Your task to perform on an android device: Open Reddit.com Image 0: 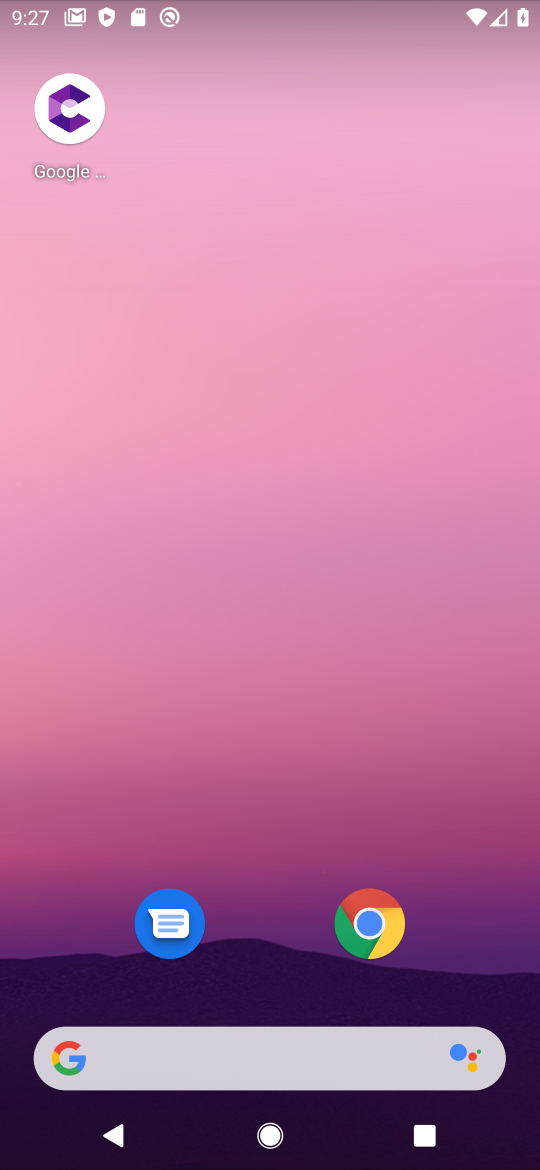
Step 0: click (291, 1061)
Your task to perform on an android device: Open Reddit.com Image 1: 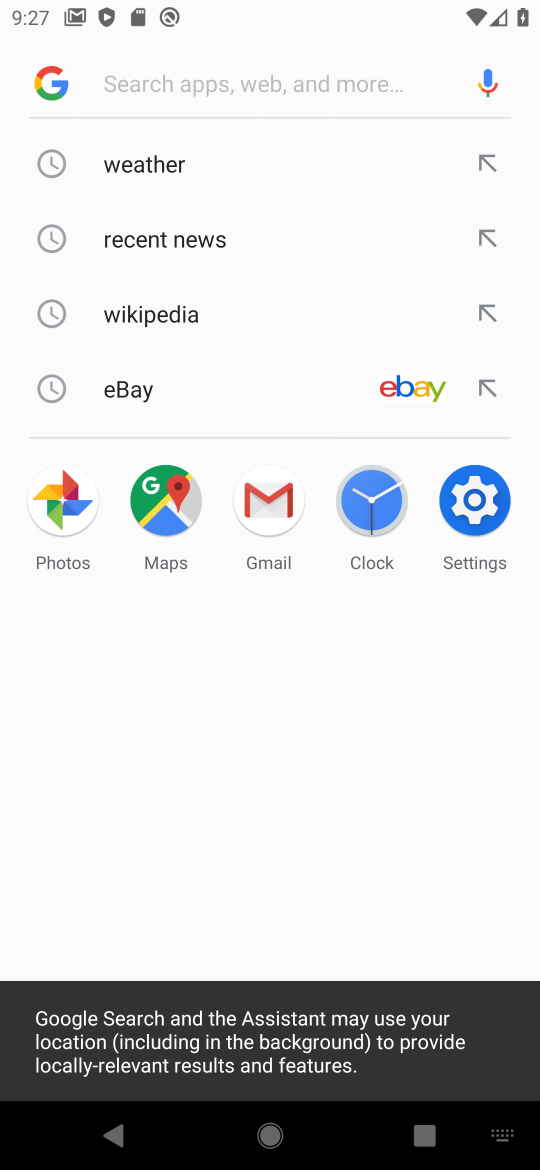
Step 1: click (221, 86)
Your task to perform on an android device: Open Reddit.com Image 2: 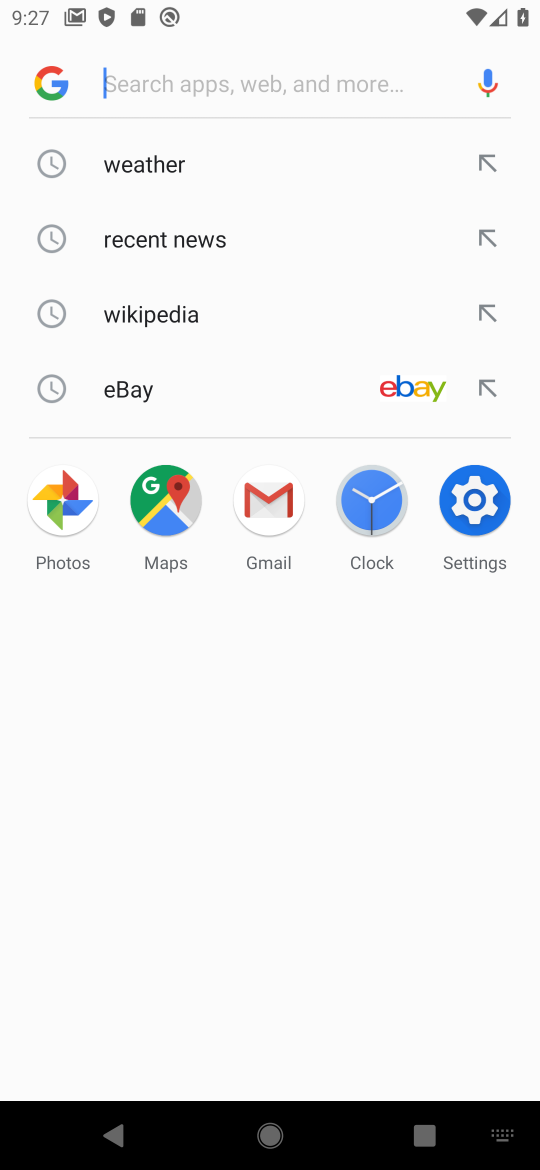
Step 2: type "Reddit.com"
Your task to perform on an android device: Open Reddit.com Image 3: 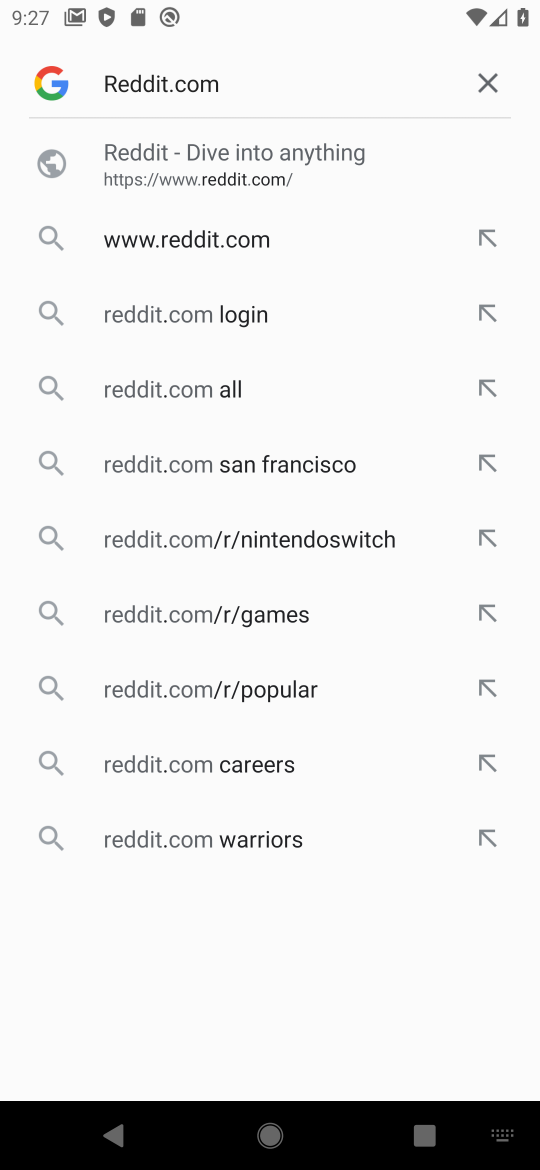
Step 3: type ""
Your task to perform on an android device: Open Reddit.com Image 4: 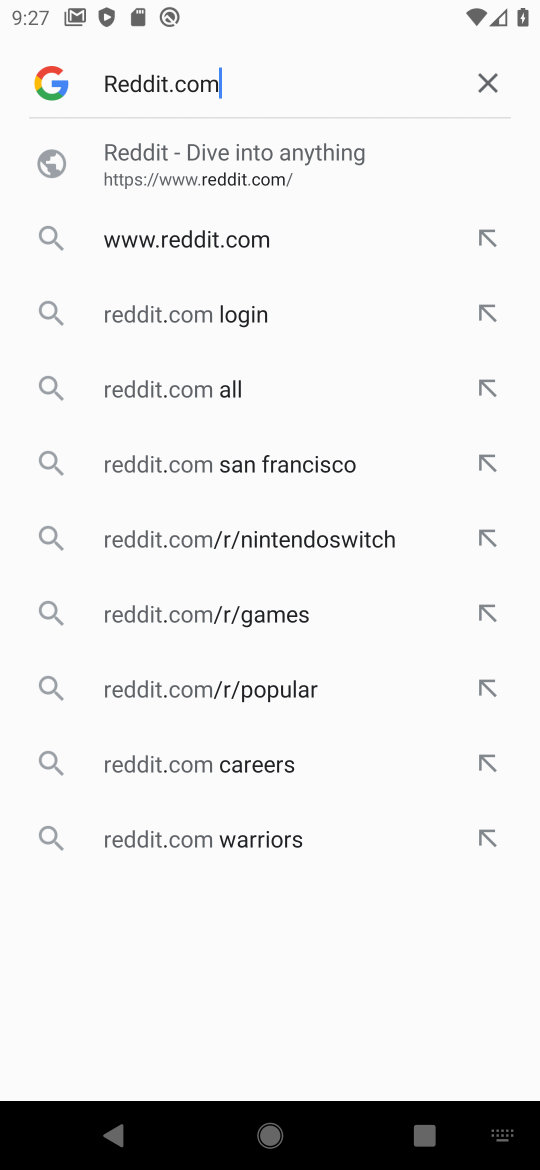
Step 4: click (179, 178)
Your task to perform on an android device: Open Reddit.com Image 5: 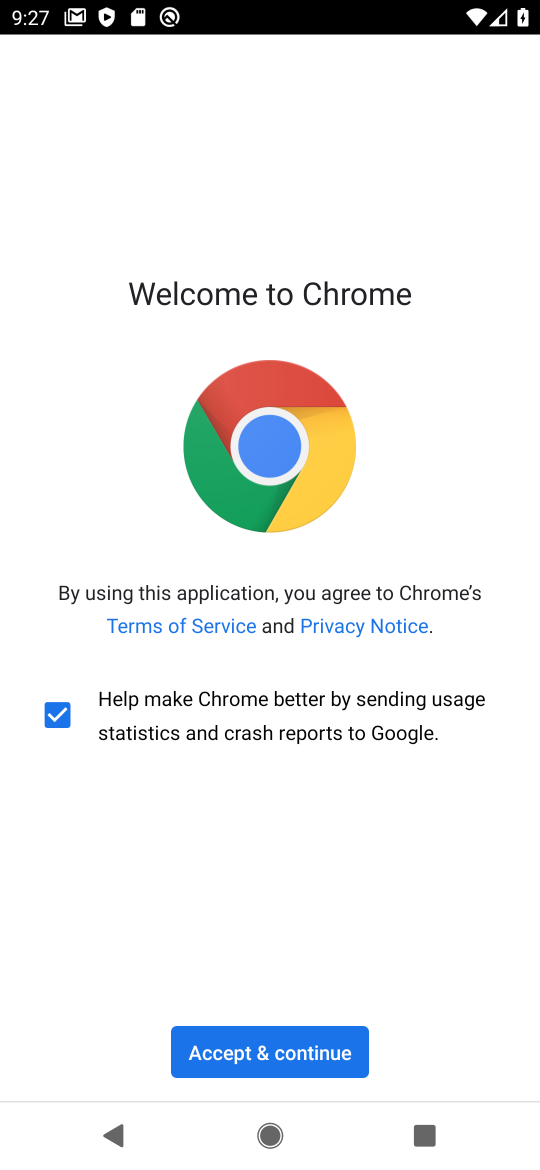
Step 5: click (244, 1044)
Your task to perform on an android device: Open Reddit.com Image 6: 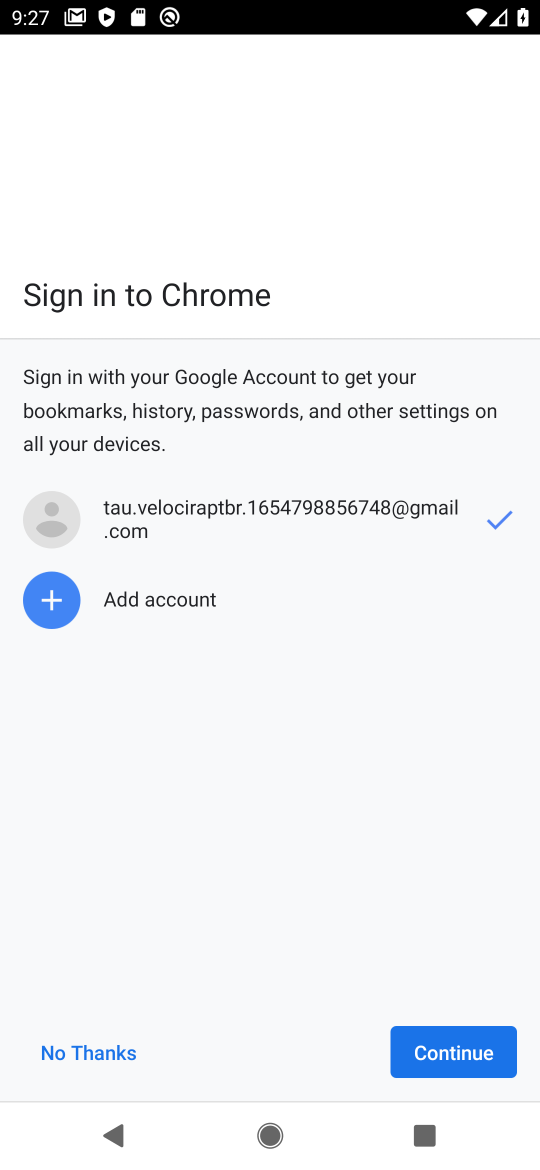
Step 6: click (103, 1043)
Your task to perform on an android device: Open Reddit.com Image 7: 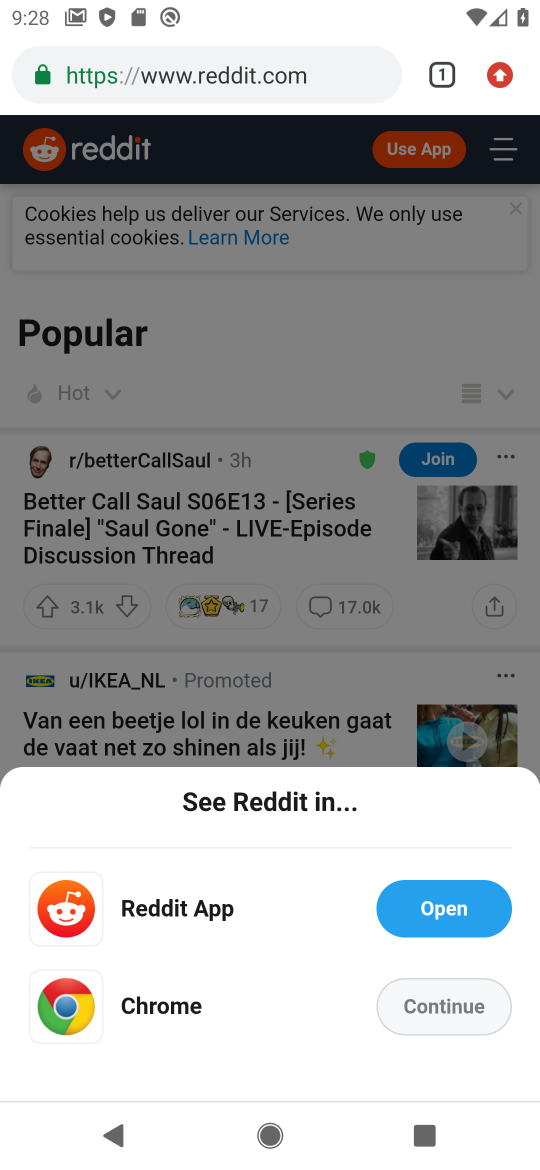
Step 7: task complete